Your task to perform on an android device: install app "Google Home" Image 0: 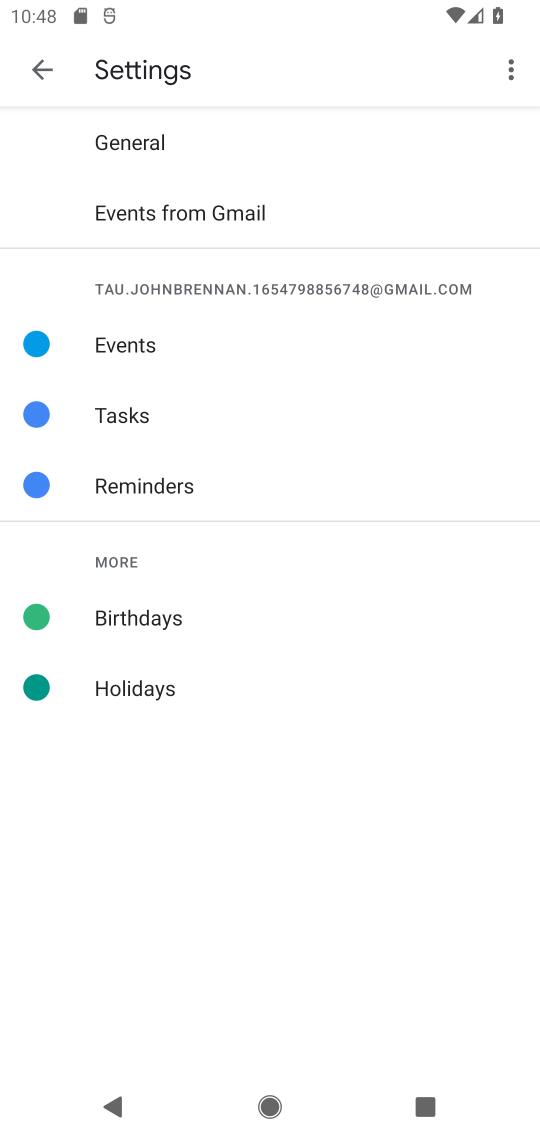
Step 0: press home button
Your task to perform on an android device: install app "Google Home" Image 1: 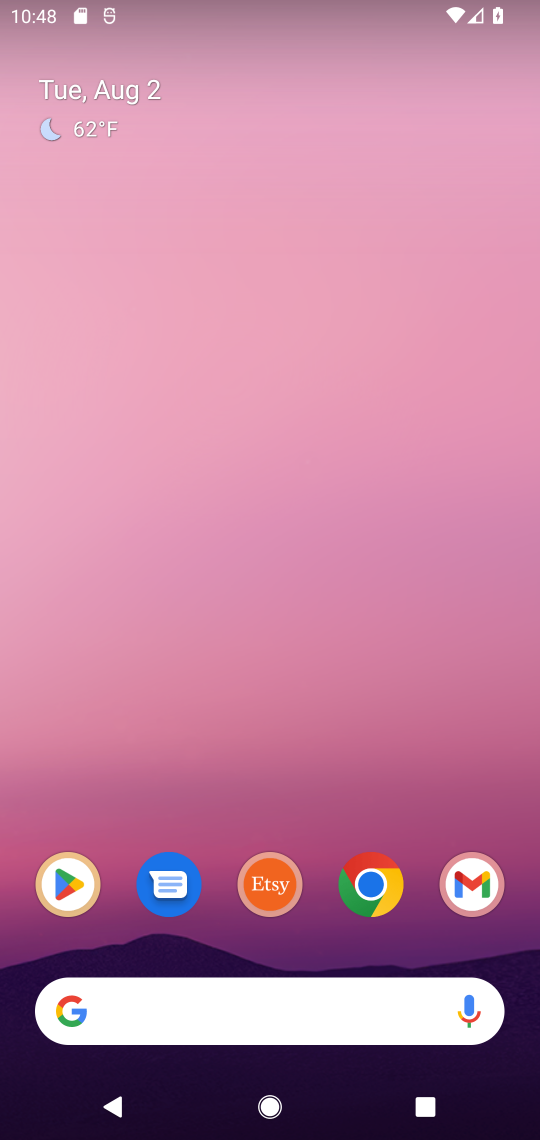
Step 1: click (55, 905)
Your task to perform on an android device: install app "Google Home" Image 2: 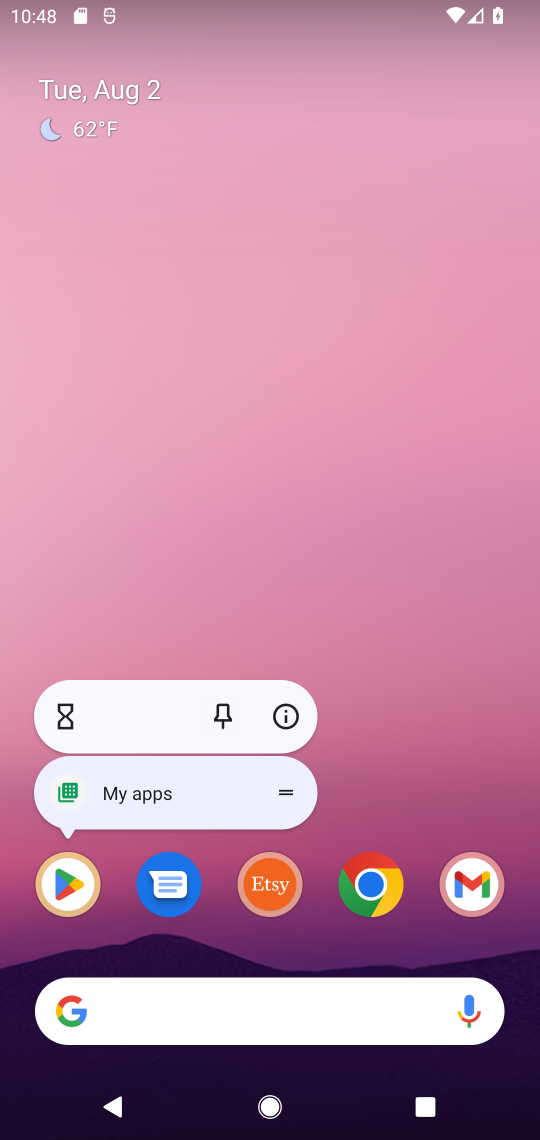
Step 2: click (67, 917)
Your task to perform on an android device: install app "Google Home" Image 3: 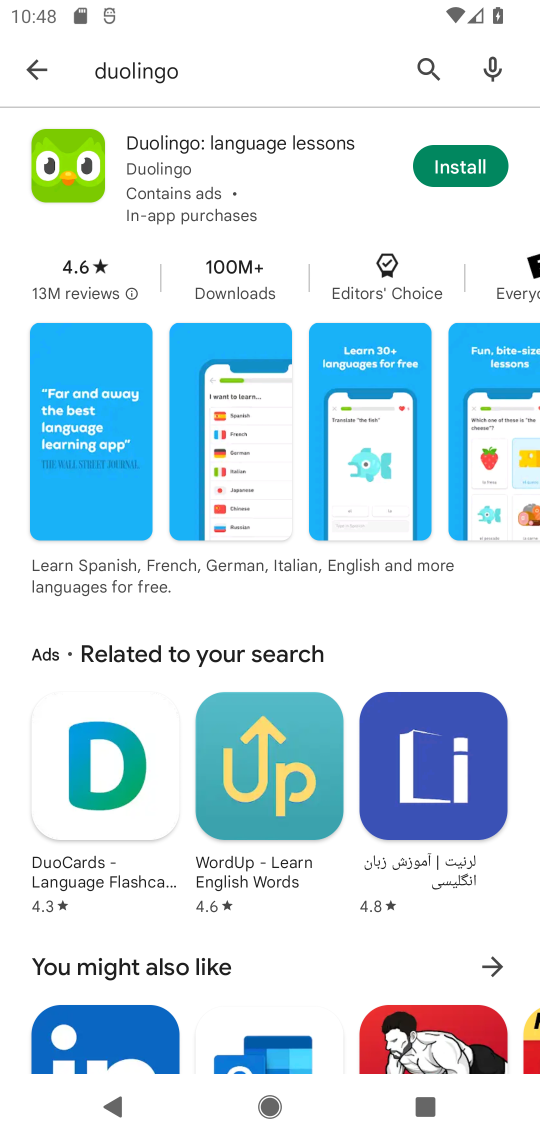
Step 3: click (228, 71)
Your task to perform on an android device: install app "Google Home" Image 4: 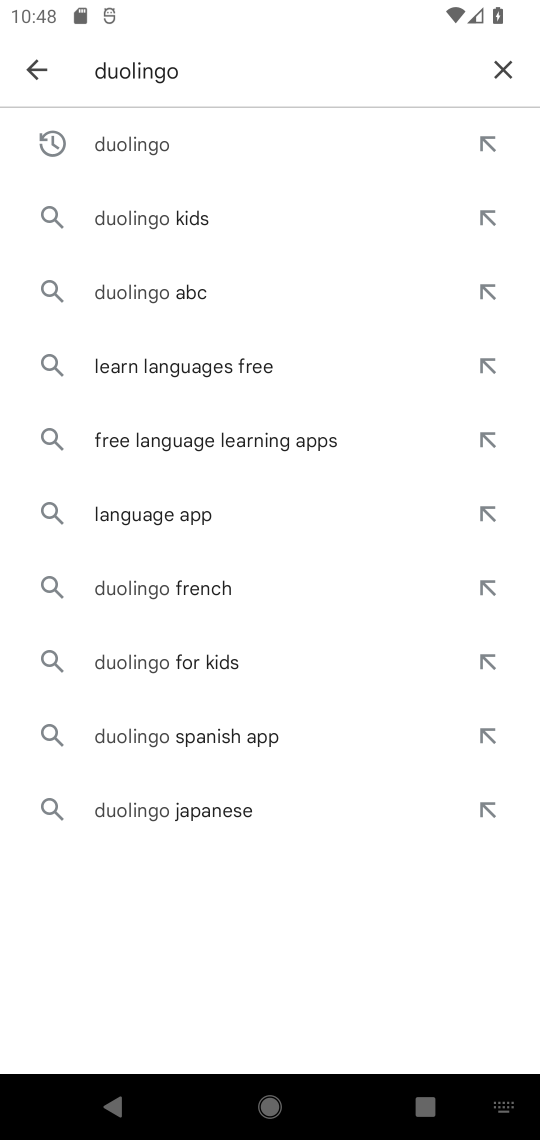
Step 4: click (503, 50)
Your task to perform on an android device: install app "Google Home" Image 5: 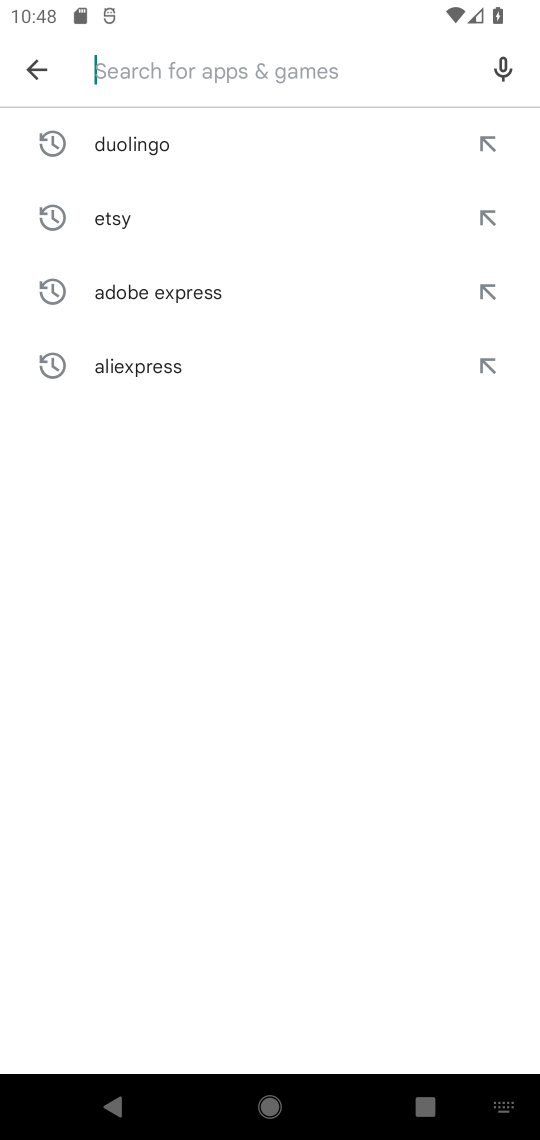
Step 5: type "google home"
Your task to perform on an android device: install app "Google Home" Image 6: 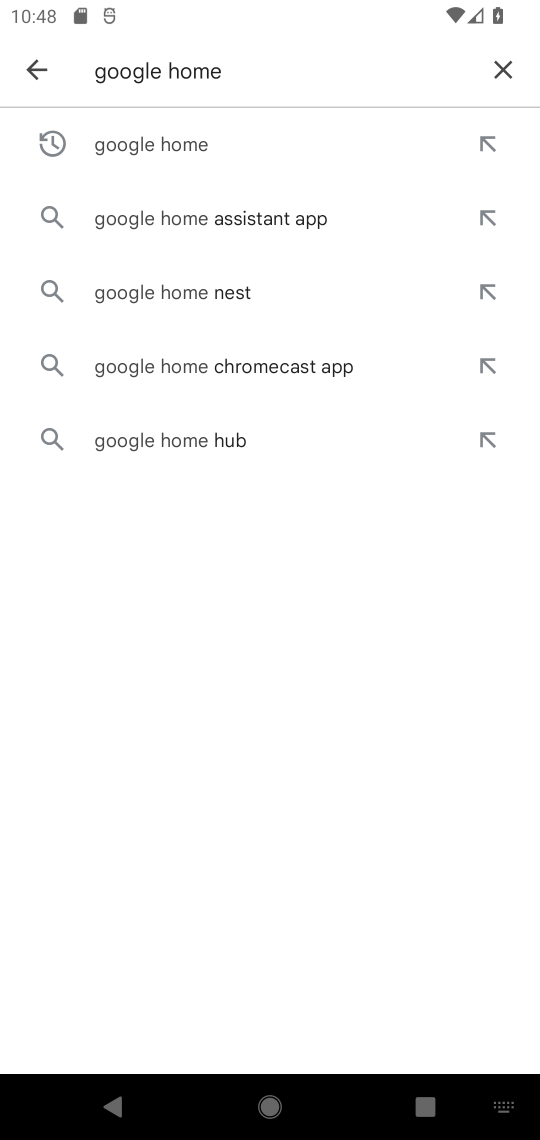
Step 6: click (196, 138)
Your task to perform on an android device: install app "Google Home" Image 7: 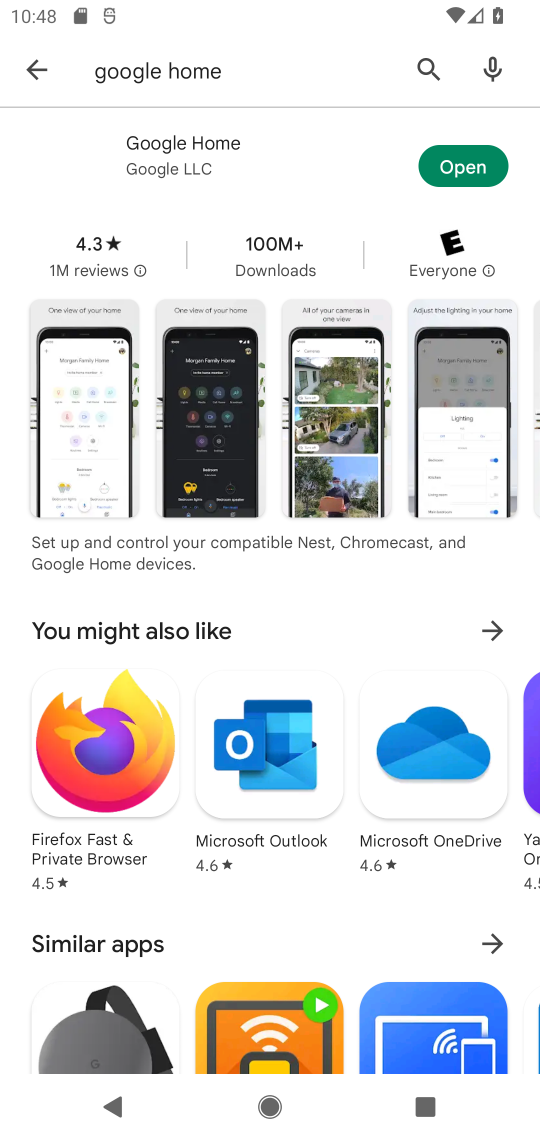
Step 7: task complete